Your task to perform on an android device: Open the map Image 0: 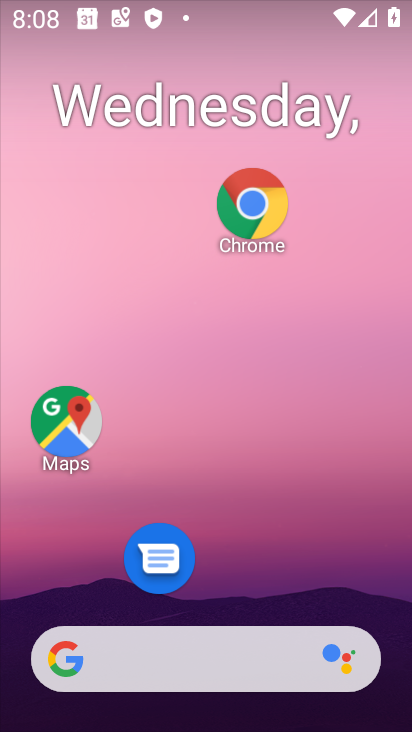
Step 0: press home button
Your task to perform on an android device: Open the map Image 1: 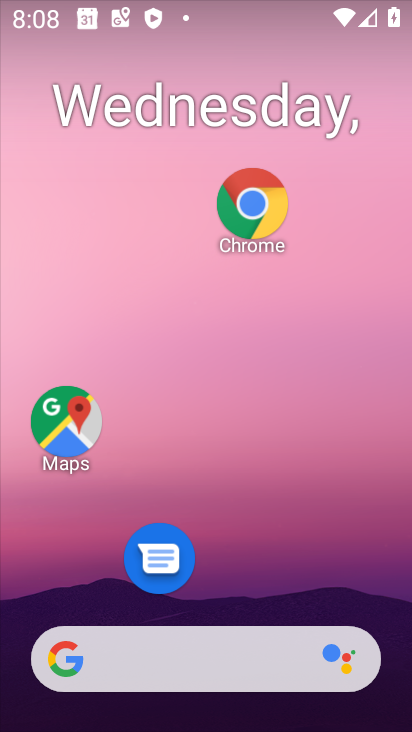
Step 1: click (64, 420)
Your task to perform on an android device: Open the map Image 2: 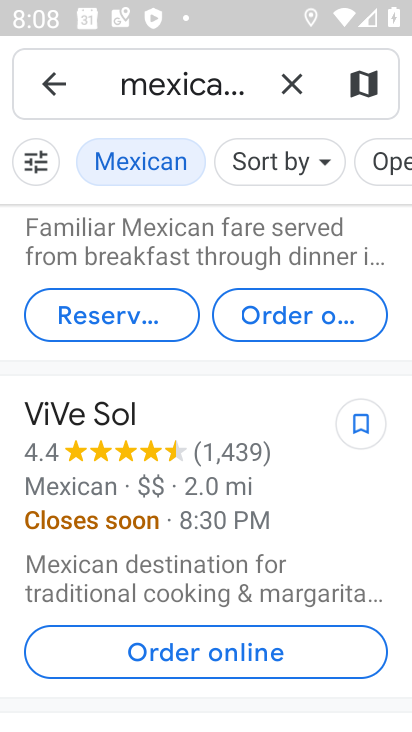
Step 2: click (292, 84)
Your task to perform on an android device: Open the map Image 3: 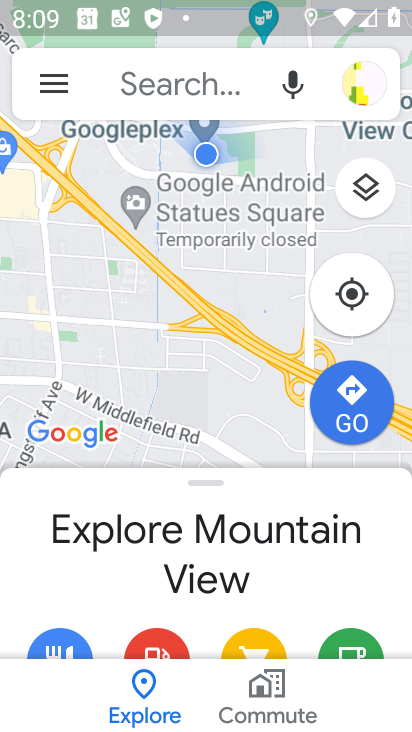
Step 3: task complete